Your task to perform on an android device: choose inbox layout in the gmail app Image 0: 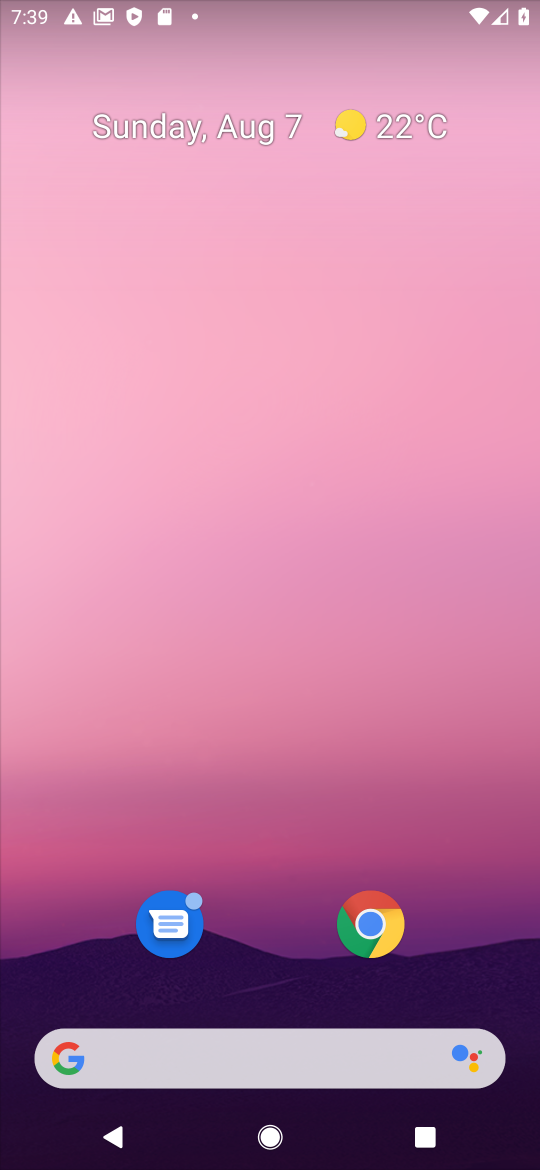
Step 0: press home button
Your task to perform on an android device: choose inbox layout in the gmail app Image 1: 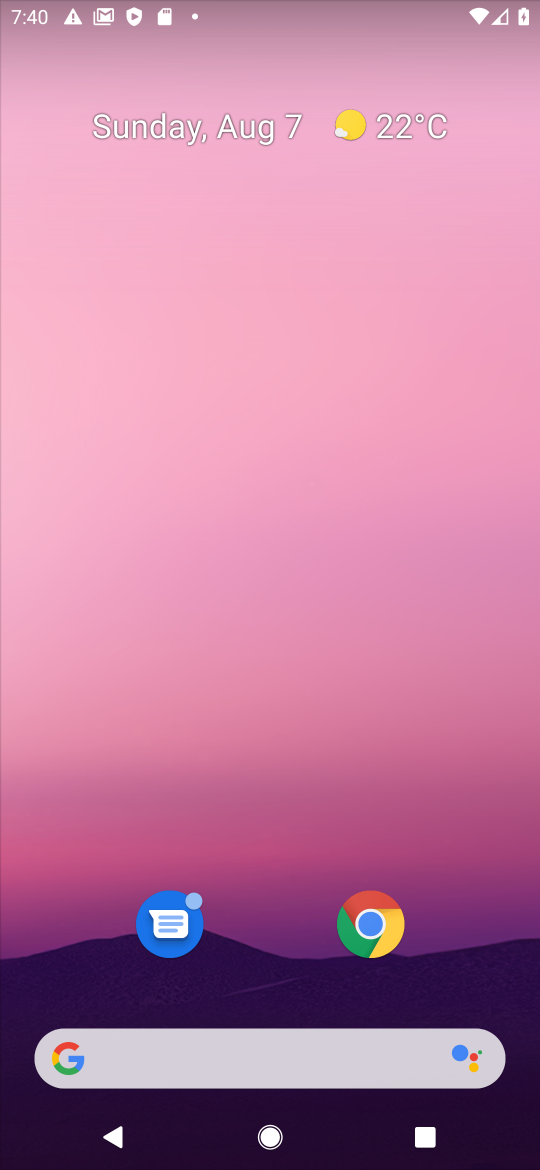
Step 1: drag from (279, 893) to (326, 0)
Your task to perform on an android device: choose inbox layout in the gmail app Image 2: 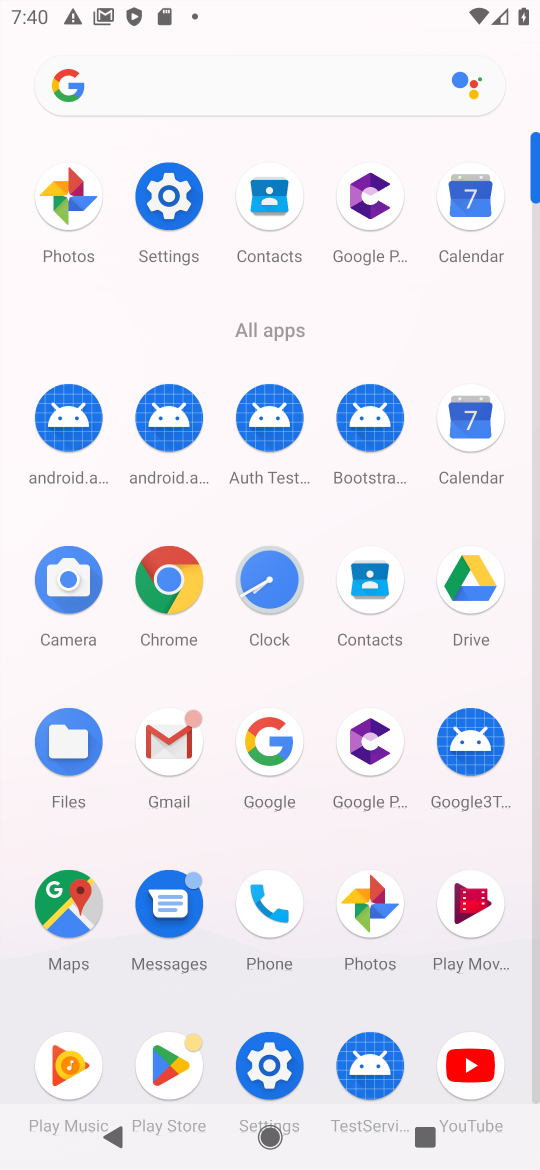
Step 2: click (163, 746)
Your task to perform on an android device: choose inbox layout in the gmail app Image 3: 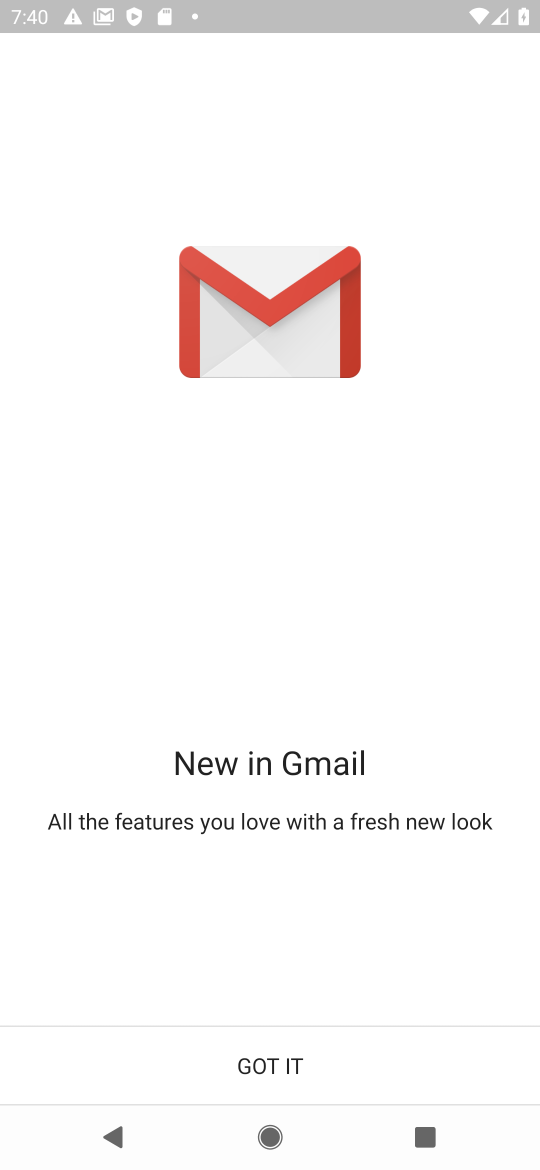
Step 3: click (273, 1056)
Your task to perform on an android device: choose inbox layout in the gmail app Image 4: 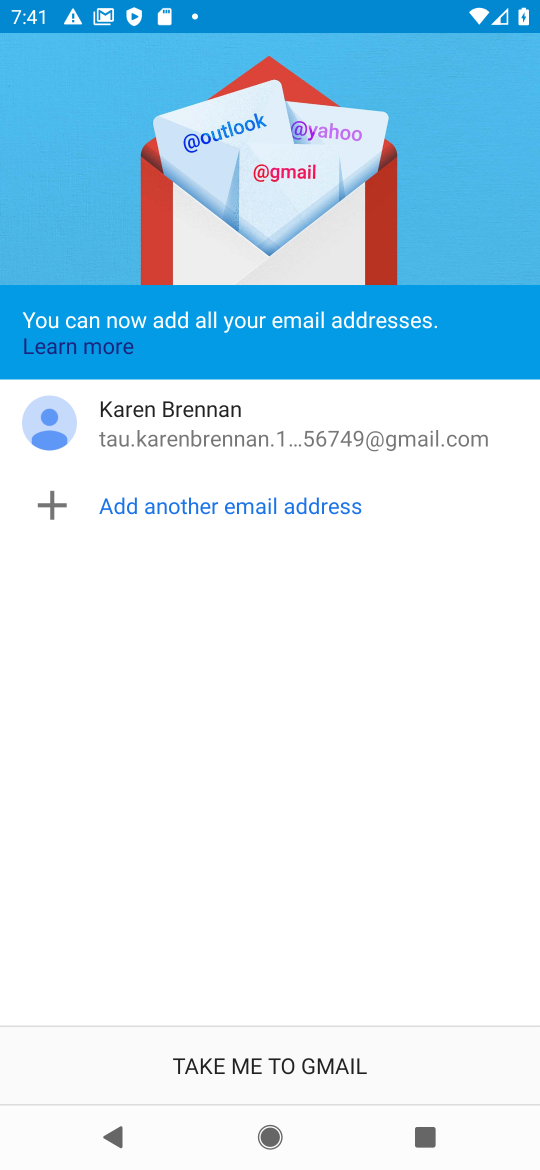
Step 4: click (316, 1064)
Your task to perform on an android device: choose inbox layout in the gmail app Image 5: 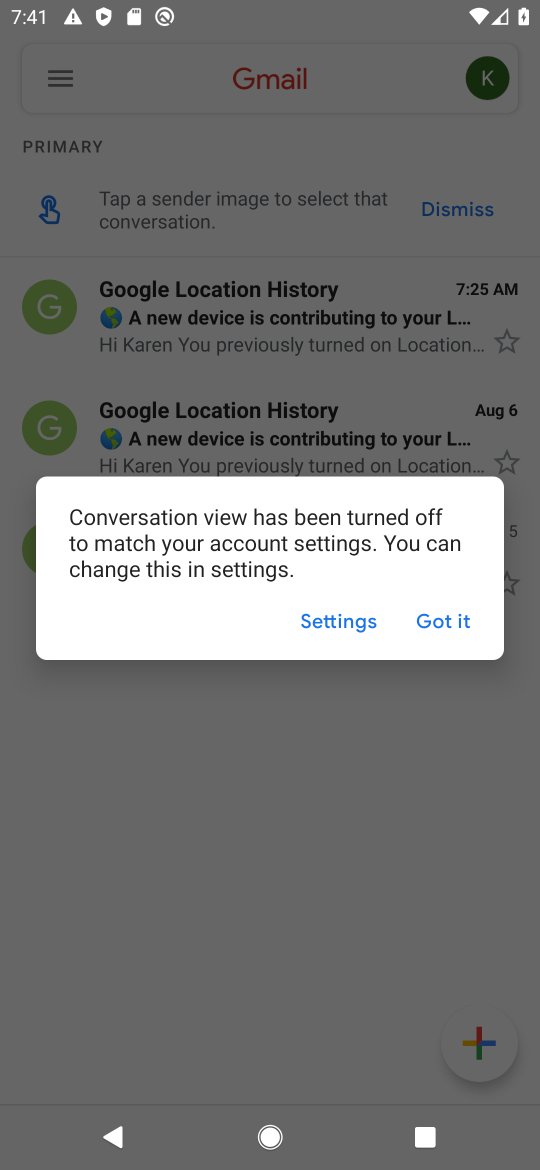
Step 5: click (429, 616)
Your task to perform on an android device: choose inbox layout in the gmail app Image 6: 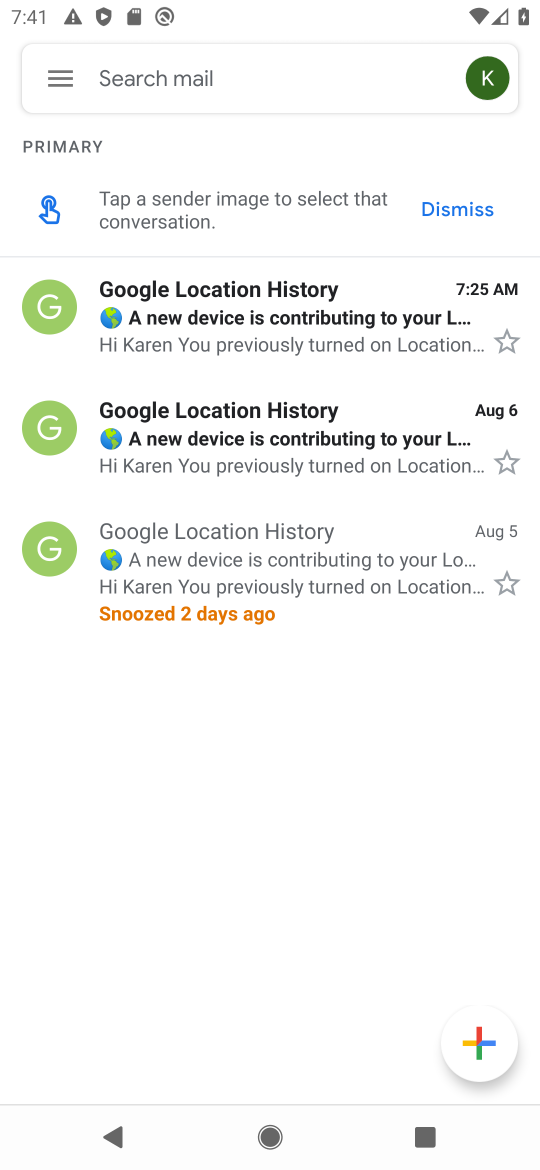
Step 6: click (58, 76)
Your task to perform on an android device: choose inbox layout in the gmail app Image 7: 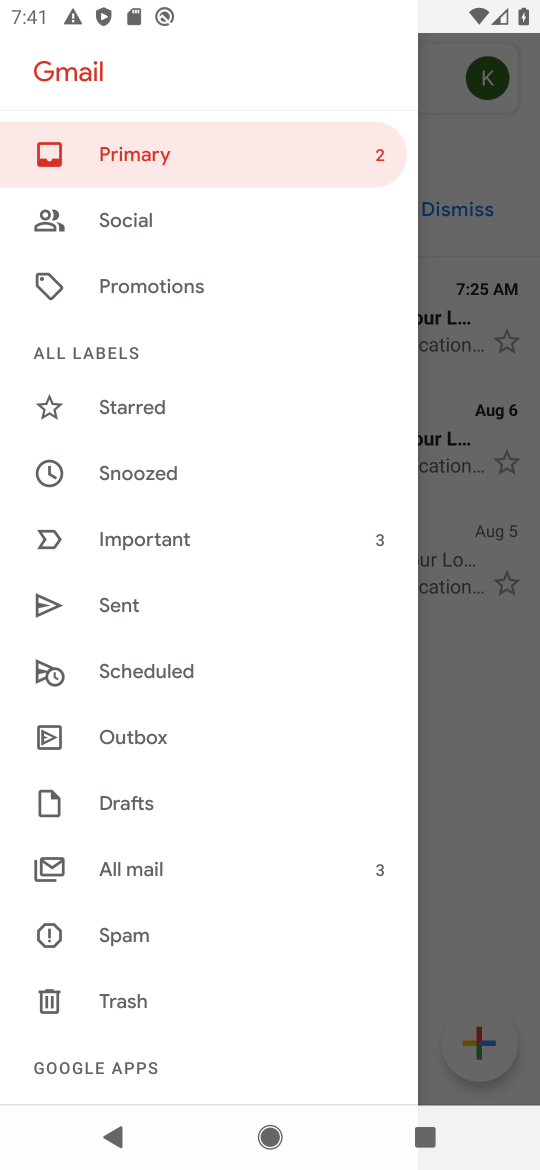
Step 7: click (138, 732)
Your task to perform on an android device: choose inbox layout in the gmail app Image 8: 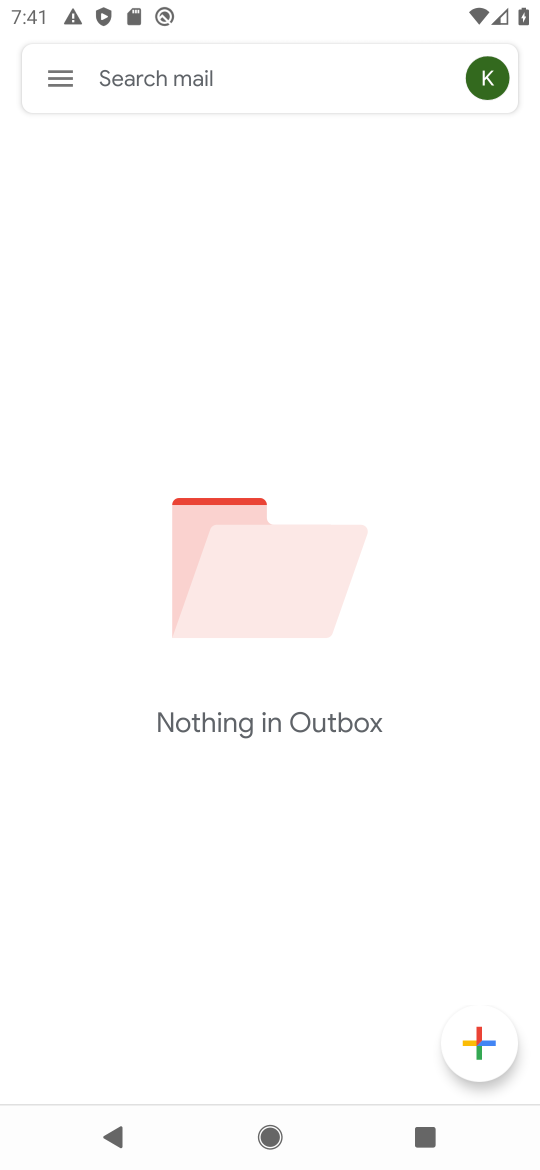
Step 8: click (65, 66)
Your task to perform on an android device: choose inbox layout in the gmail app Image 9: 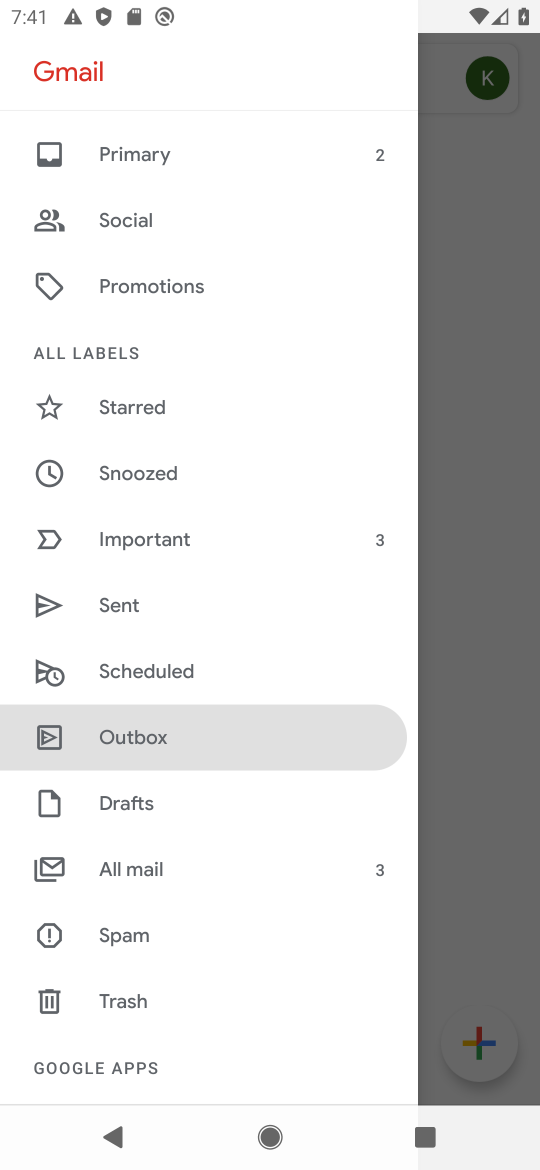
Step 9: drag from (223, 983) to (281, 80)
Your task to perform on an android device: choose inbox layout in the gmail app Image 10: 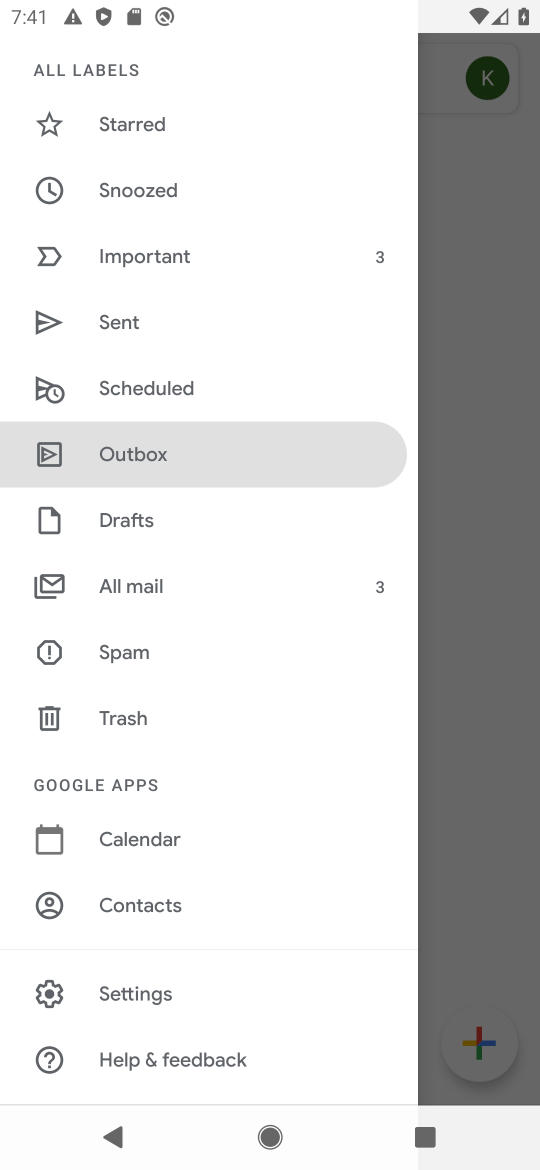
Step 10: click (143, 988)
Your task to perform on an android device: choose inbox layout in the gmail app Image 11: 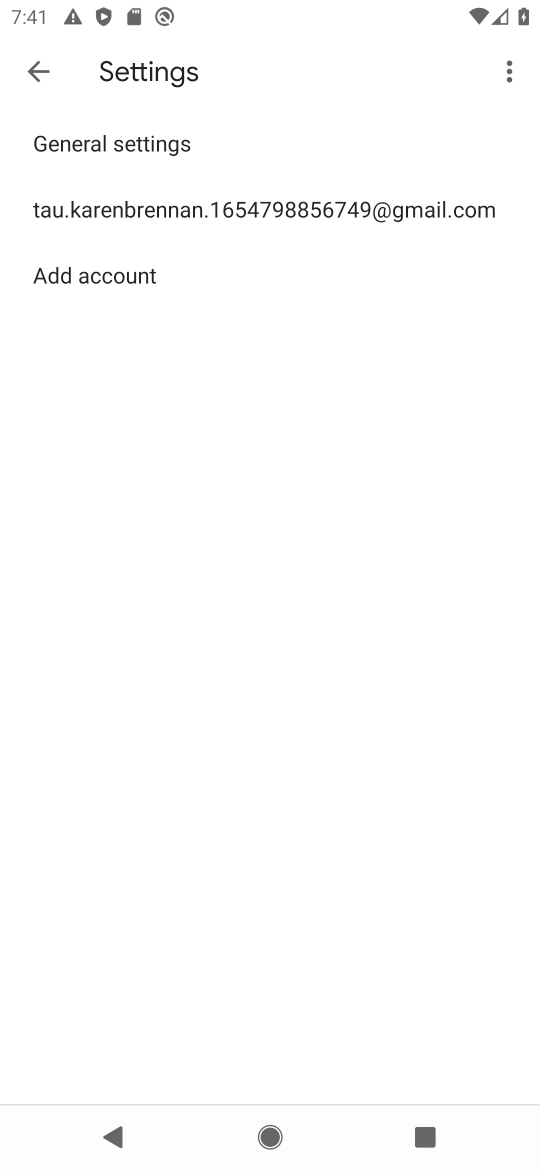
Step 11: click (282, 187)
Your task to perform on an android device: choose inbox layout in the gmail app Image 12: 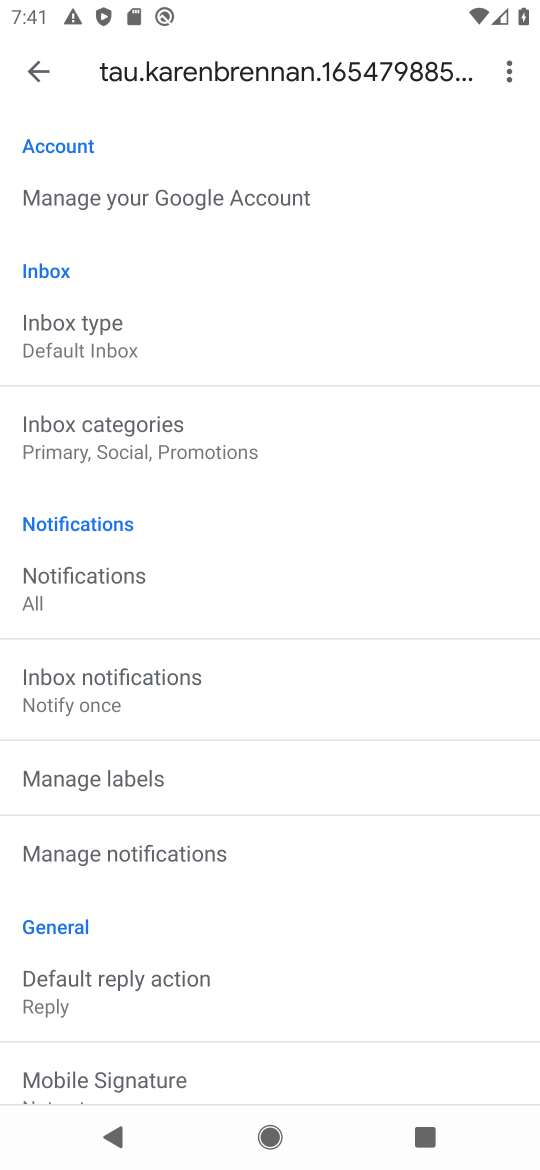
Step 12: click (123, 335)
Your task to perform on an android device: choose inbox layout in the gmail app Image 13: 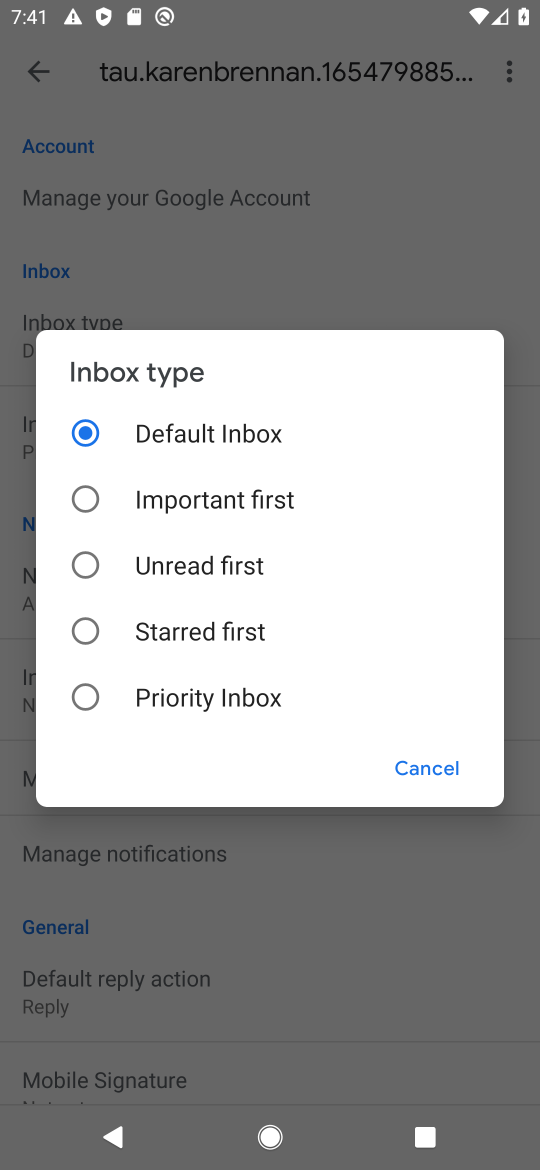
Step 13: click (90, 565)
Your task to perform on an android device: choose inbox layout in the gmail app Image 14: 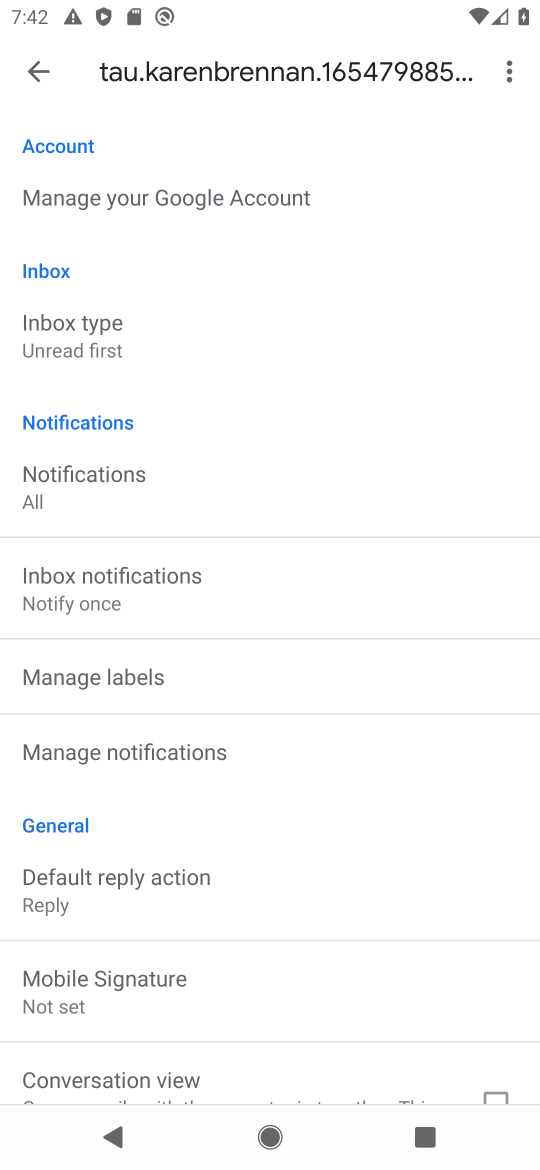
Step 14: task complete